Your task to perform on an android device: turn on the 12-hour format for clock Image 0: 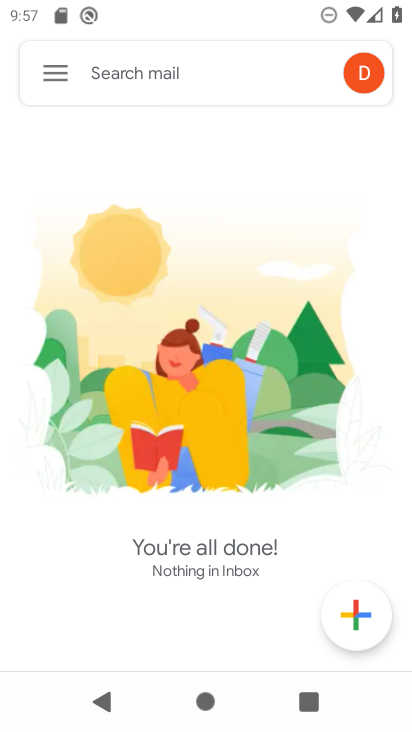
Step 0: press home button
Your task to perform on an android device: turn on the 12-hour format for clock Image 1: 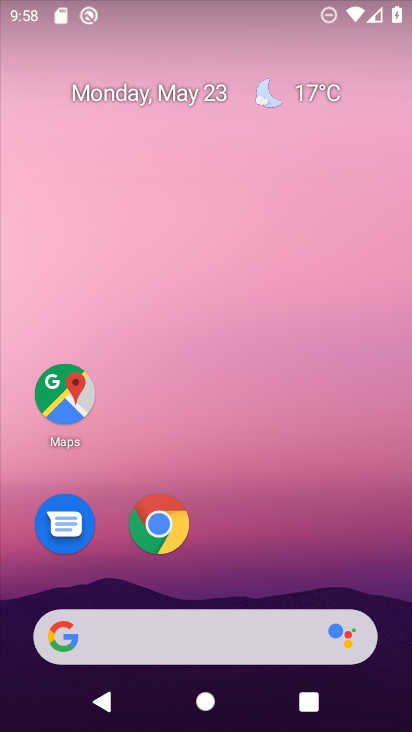
Step 1: drag from (245, 602) to (249, 290)
Your task to perform on an android device: turn on the 12-hour format for clock Image 2: 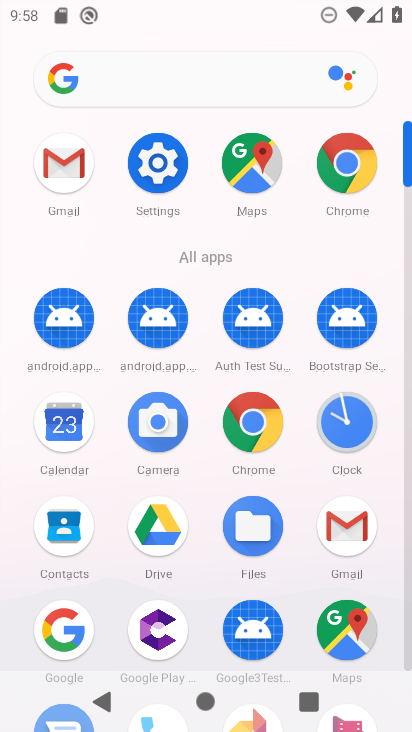
Step 2: click (335, 428)
Your task to perform on an android device: turn on the 12-hour format for clock Image 3: 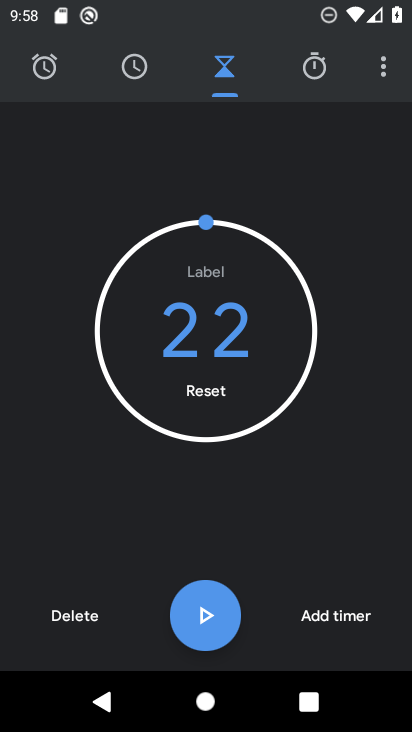
Step 3: click (373, 71)
Your task to perform on an android device: turn on the 12-hour format for clock Image 4: 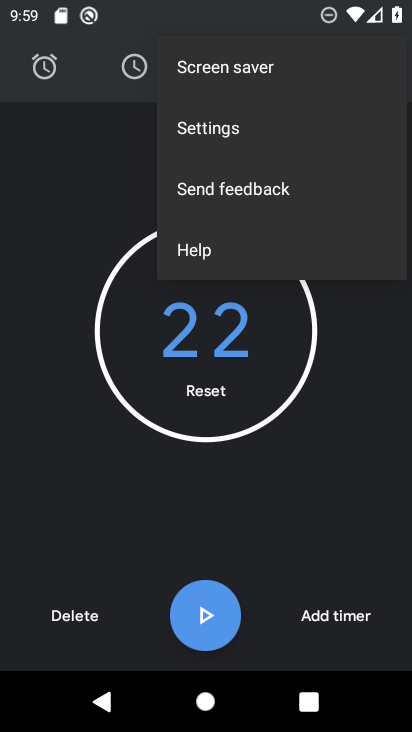
Step 4: click (207, 136)
Your task to perform on an android device: turn on the 12-hour format for clock Image 5: 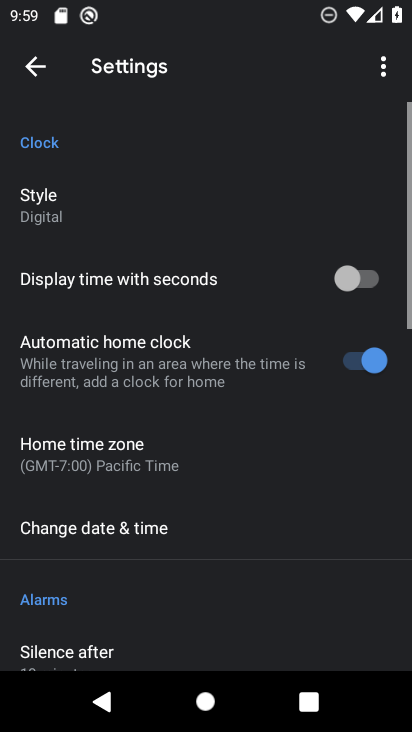
Step 5: click (182, 519)
Your task to perform on an android device: turn on the 12-hour format for clock Image 6: 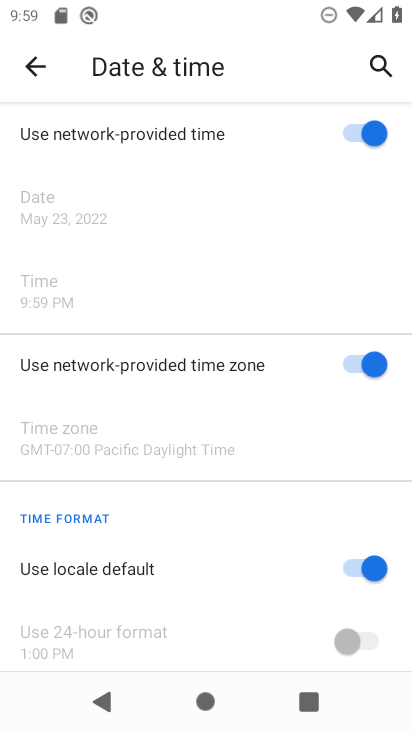
Step 6: task complete